Your task to perform on an android device: turn pop-ups on in chrome Image 0: 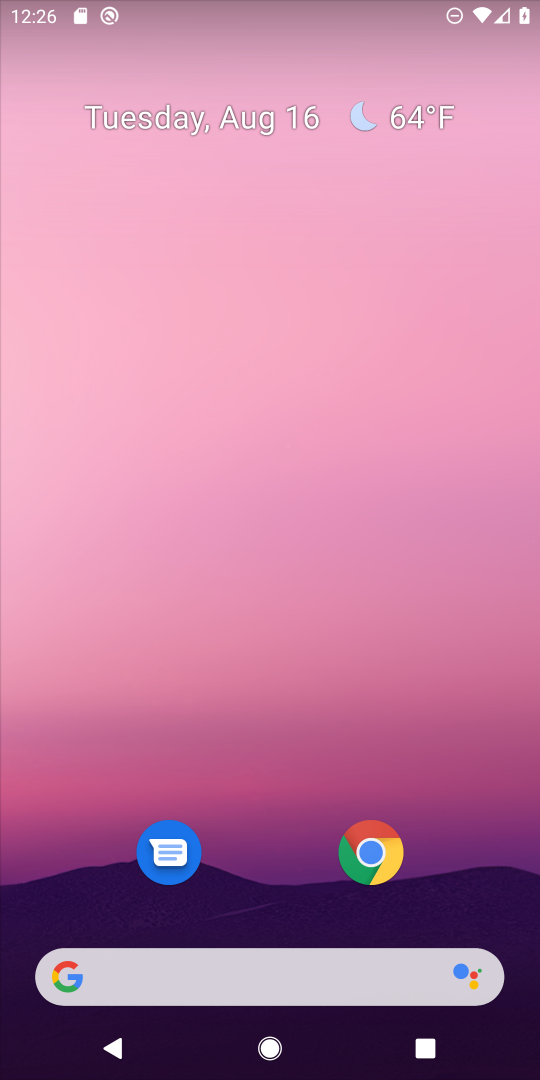
Step 0: click (370, 853)
Your task to perform on an android device: turn pop-ups on in chrome Image 1: 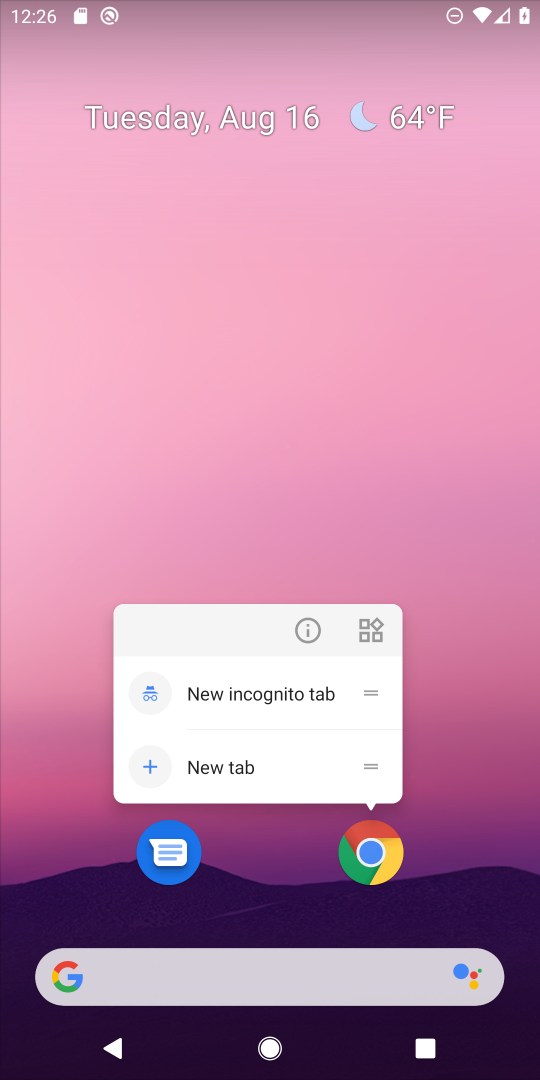
Step 1: click (374, 862)
Your task to perform on an android device: turn pop-ups on in chrome Image 2: 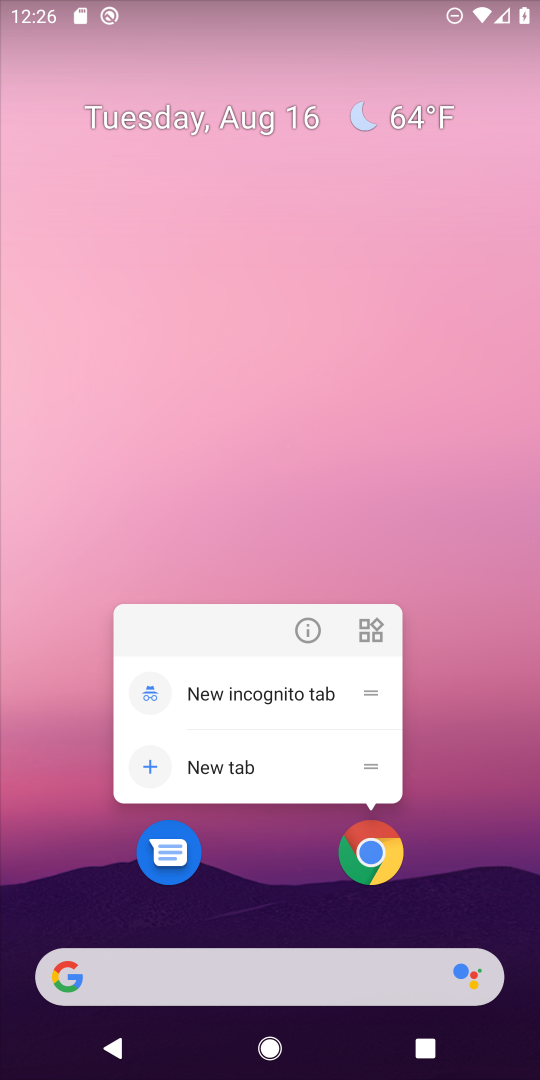
Step 2: click (377, 855)
Your task to perform on an android device: turn pop-ups on in chrome Image 3: 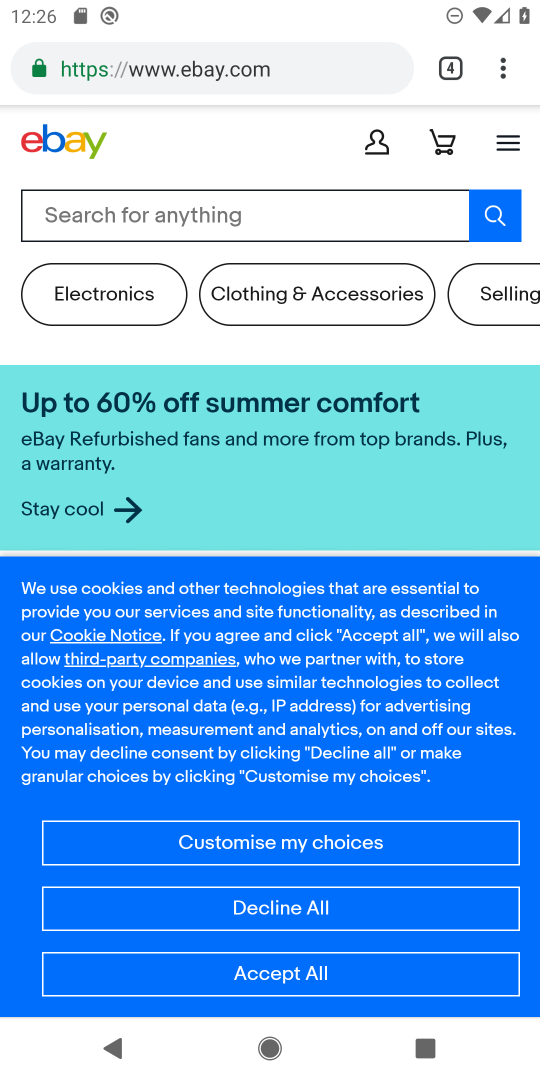
Step 3: drag from (507, 62) to (281, 905)
Your task to perform on an android device: turn pop-ups on in chrome Image 4: 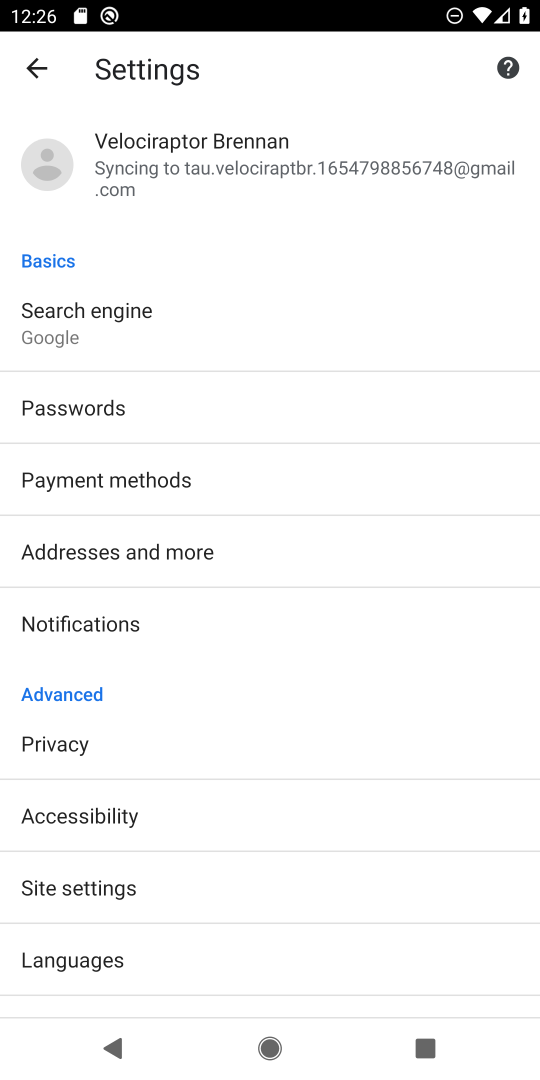
Step 4: click (79, 882)
Your task to perform on an android device: turn pop-ups on in chrome Image 5: 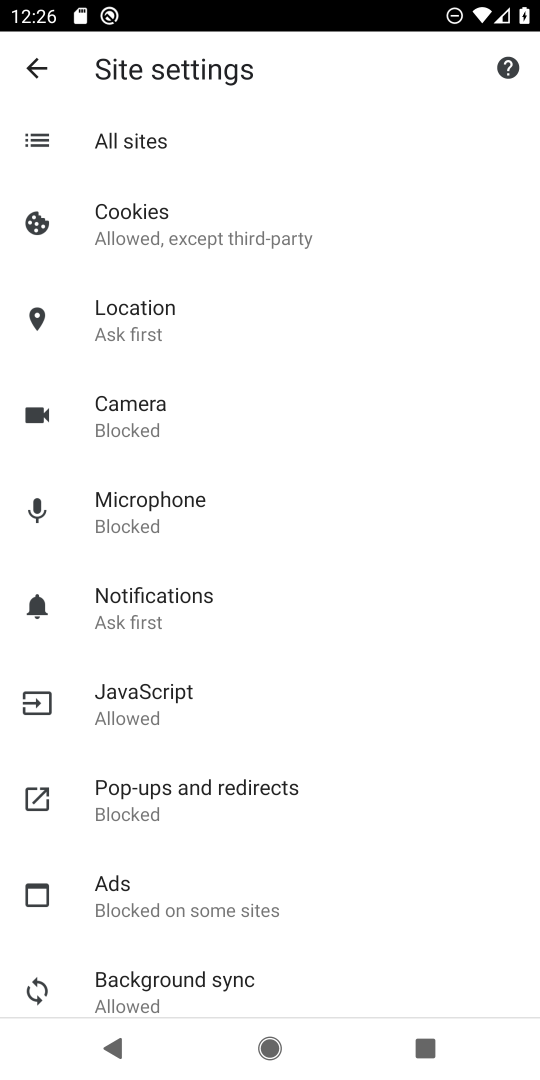
Step 5: click (200, 794)
Your task to perform on an android device: turn pop-ups on in chrome Image 6: 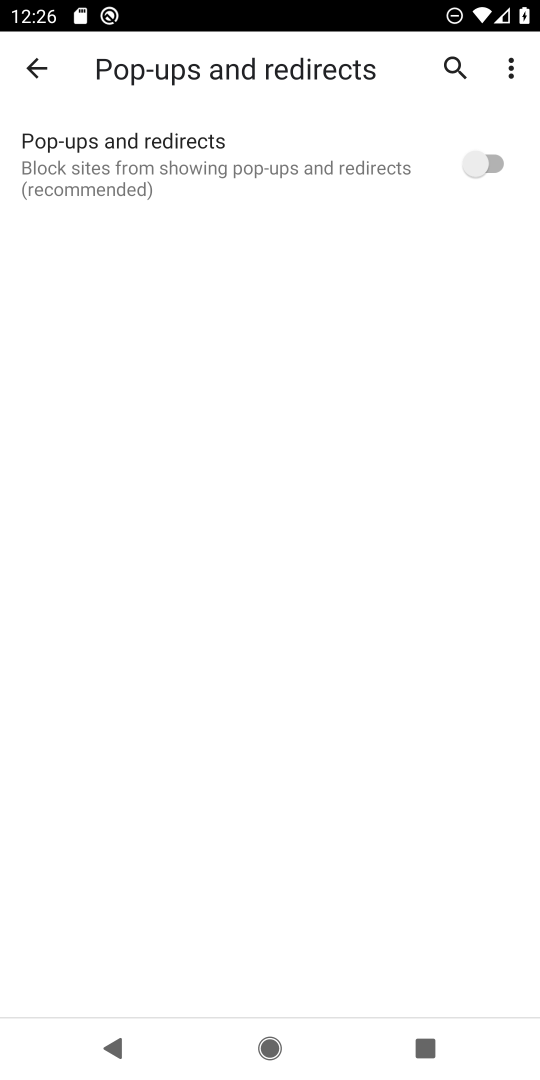
Step 6: click (482, 158)
Your task to perform on an android device: turn pop-ups on in chrome Image 7: 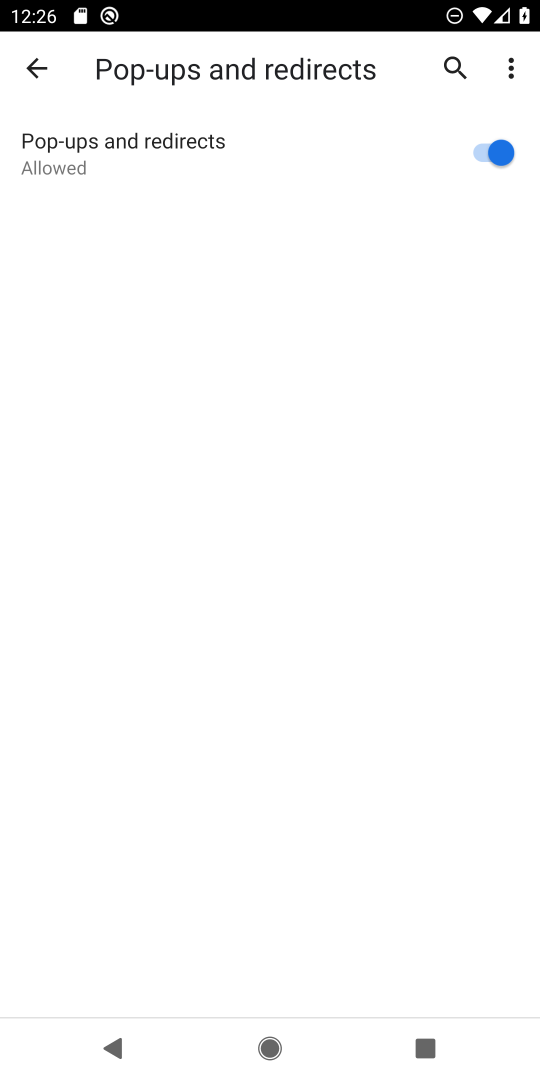
Step 7: task complete